Your task to perform on an android device: Search for the best rated book on Goodreads. Image 0: 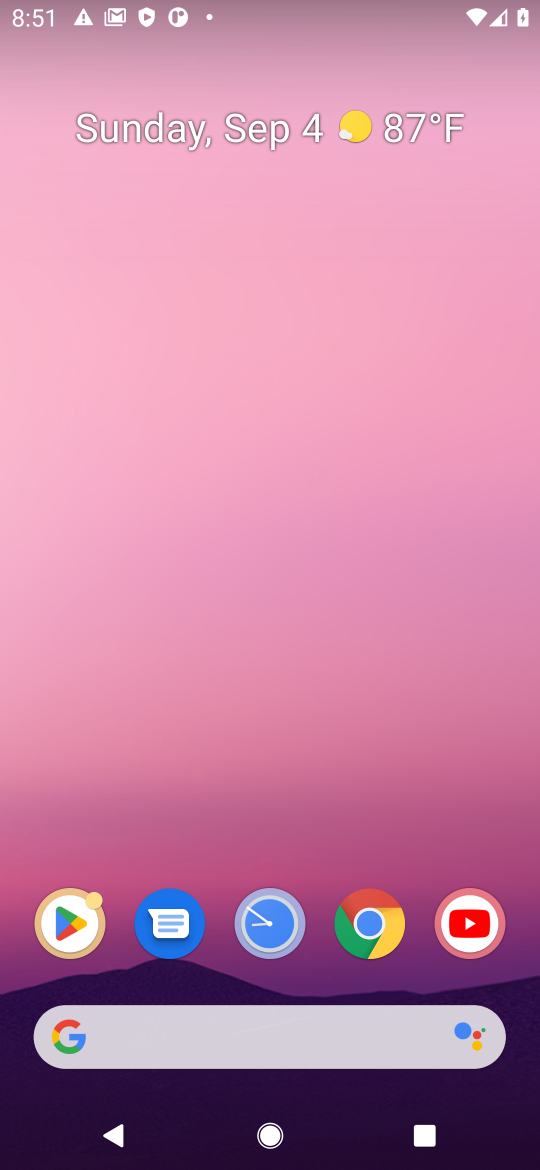
Step 0: press home button
Your task to perform on an android device: Search for the best rated book on Goodreads. Image 1: 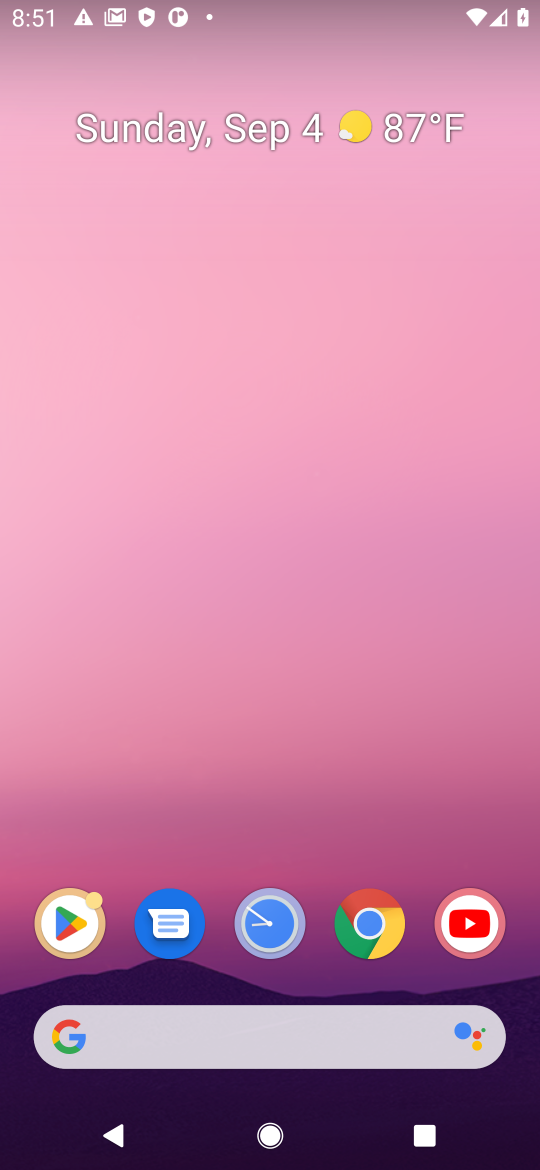
Step 1: click (399, 1030)
Your task to perform on an android device: Search for the best rated book on Goodreads. Image 2: 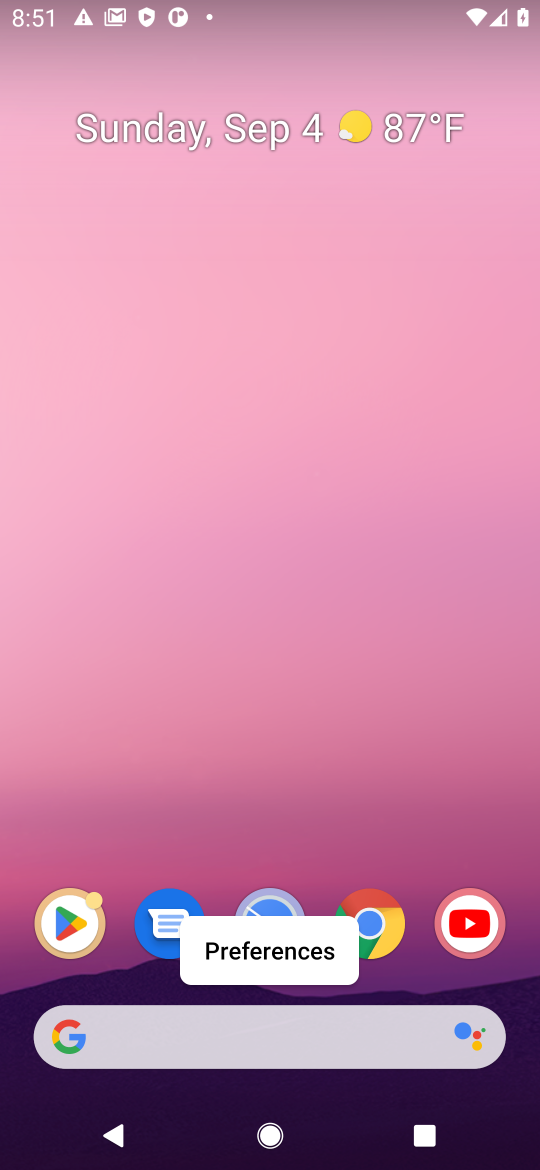
Step 2: click (377, 1038)
Your task to perform on an android device: Search for the best rated book on Goodreads. Image 3: 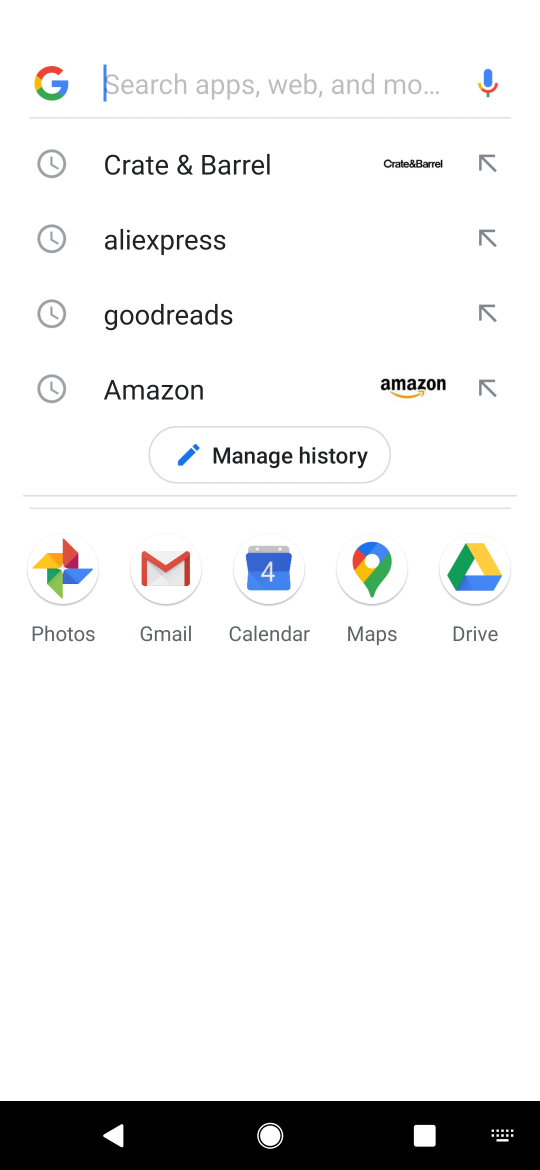
Step 3: press enter
Your task to perform on an android device: Search for the best rated book on Goodreads. Image 4: 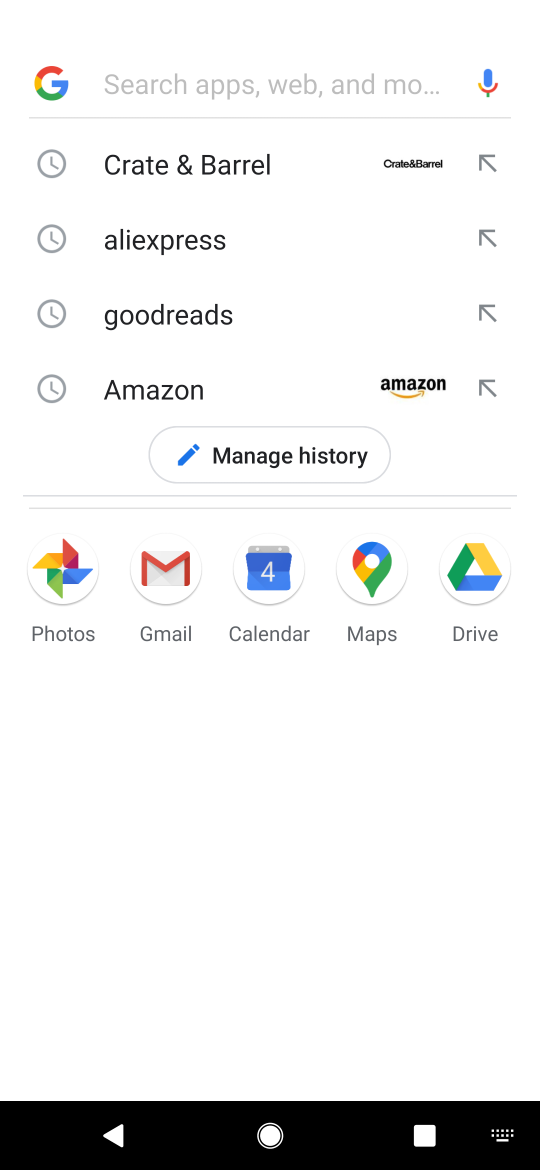
Step 4: type "goodreads"
Your task to perform on an android device: Search for the best rated book on Goodreads. Image 5: 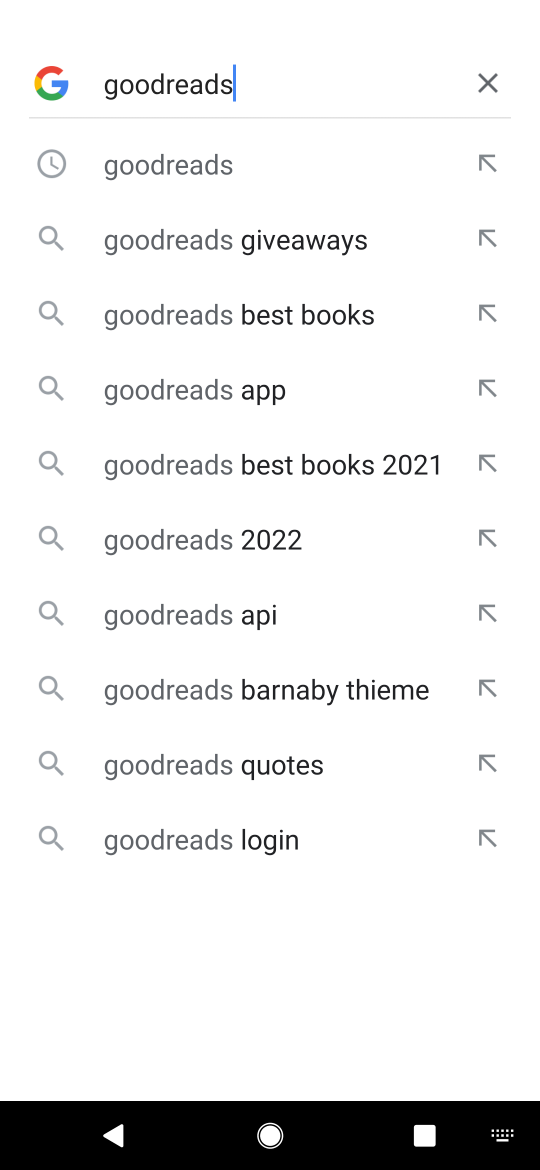
Step 5: click (205, 158)
Your task to perform on an android device: Search for the best rated book on Goodreads. Image 6: 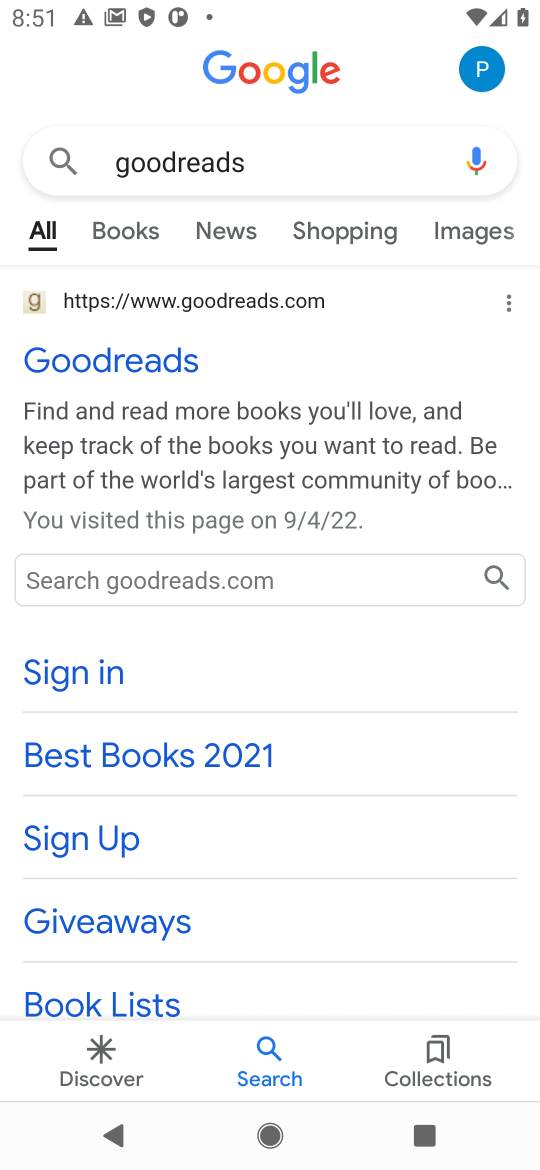
Step 6: click (145, 362)
Your task to perform on an android device: Search for the best rated book on Goodreads. Image 7: 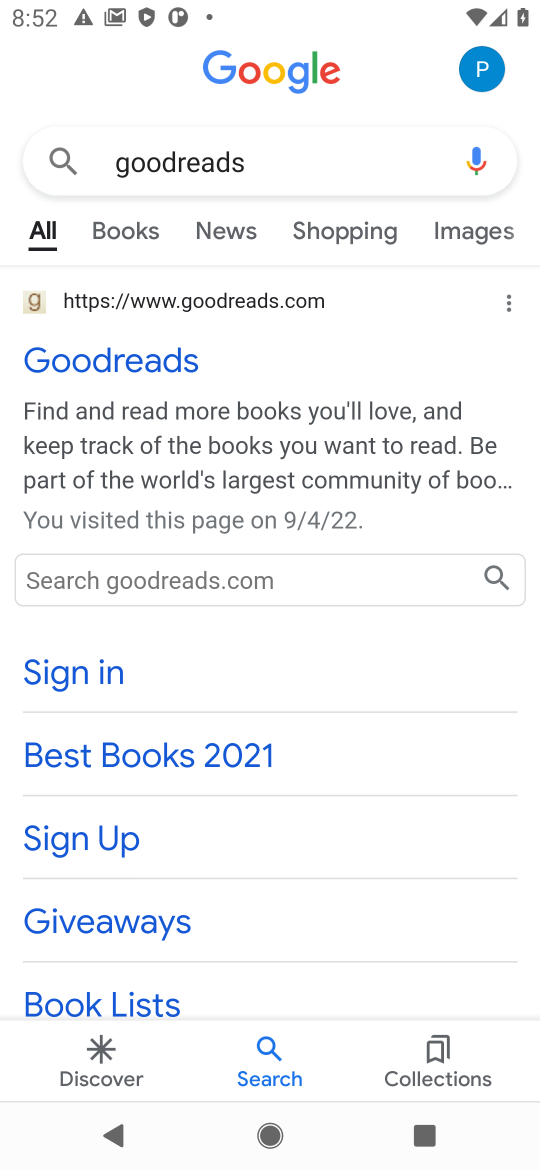
Step 7: click (178, 360)
Your task to perform on an android device: Search for the best rated book on Goodreads. Image 8: 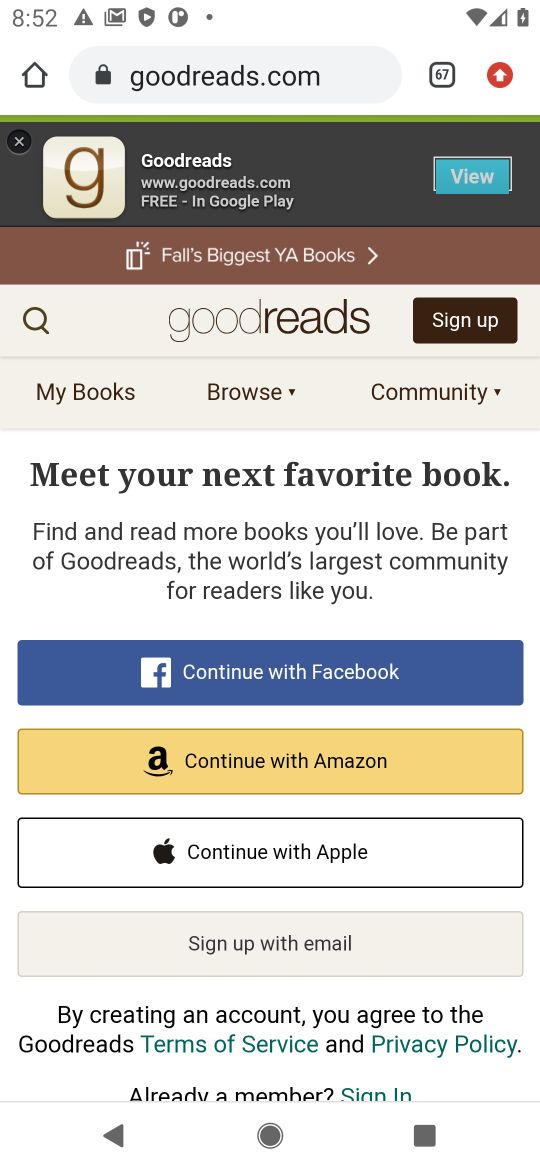
Step 8: click (37, 323)
Your task to perform on an android device: Search for the best rated book on Goodreads. Image 9: 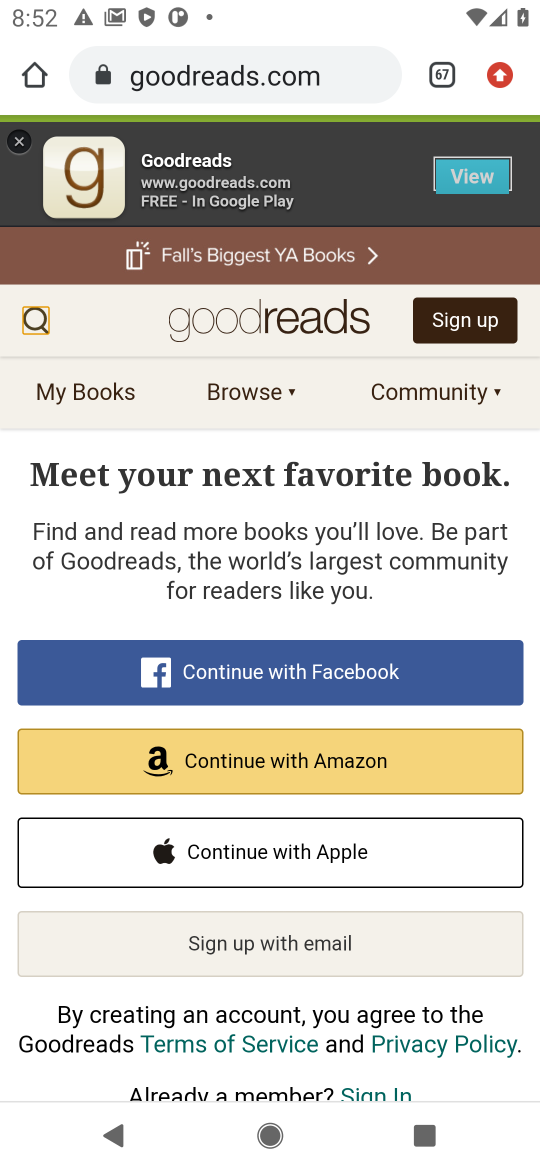
Step 9: click (69, 332)
Your task to perform on an android device: Search for the best rated book on Goodreads. Image 10: 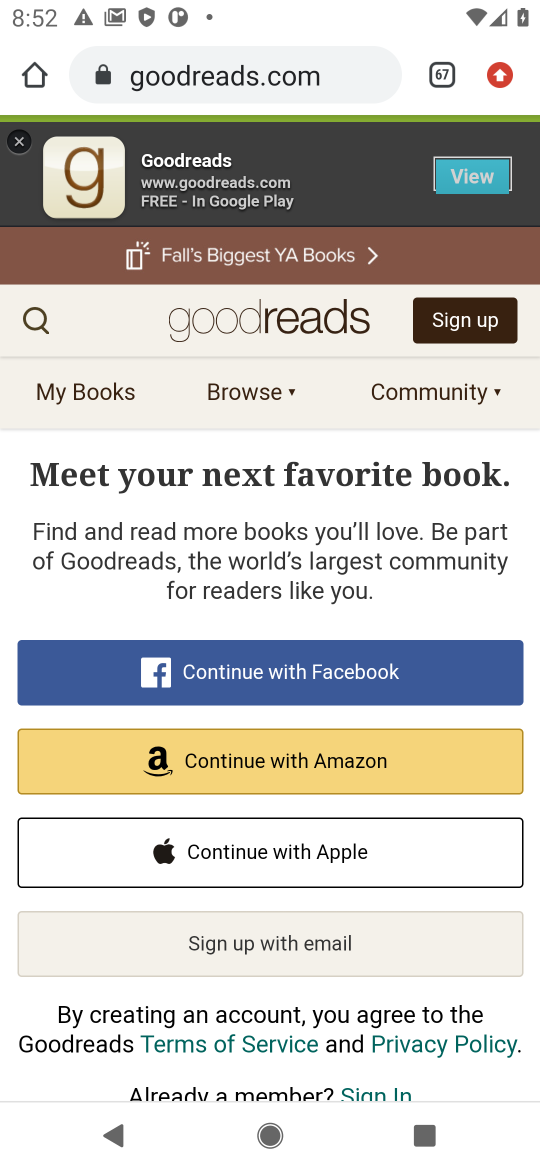
Step 10: click (52, 325)
Your task to perform on an android device: Search for the best rated book on Goodreads. Image 11: 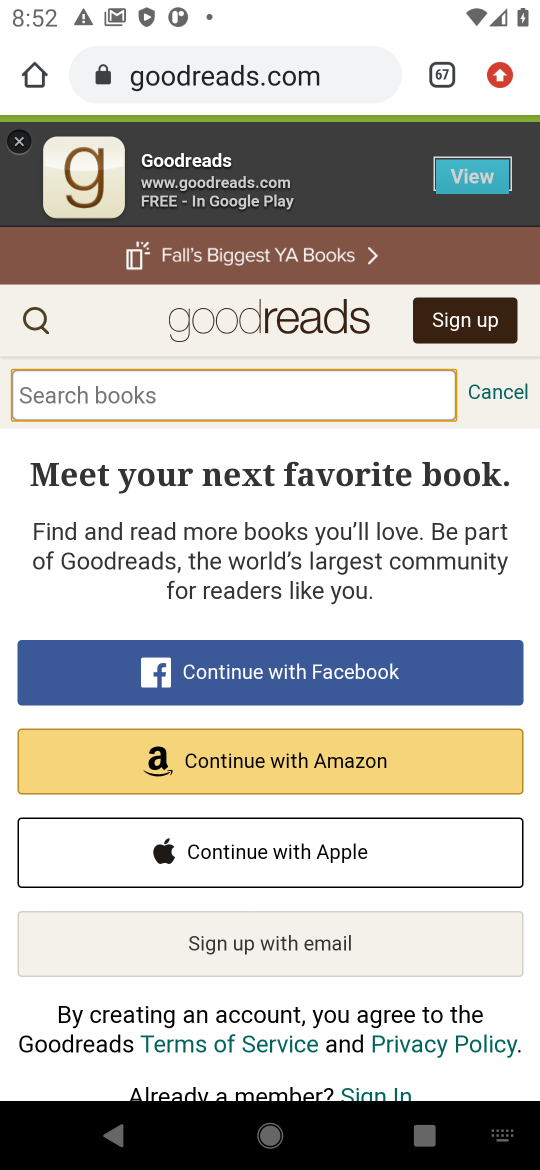
Step 11: press enter
Your task to perform on an android device: Search for the best rated book on Goodreads. Image 12: 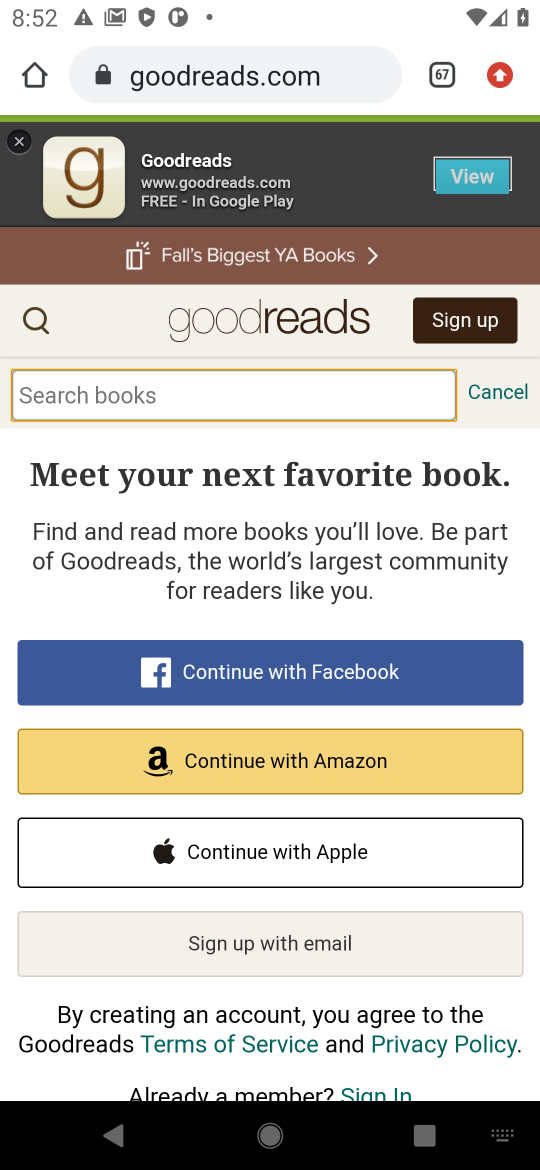
Step 12: type "best rated book"
Your task to perform on an android device: Search for the best rated book on Goodreads. Image 13: 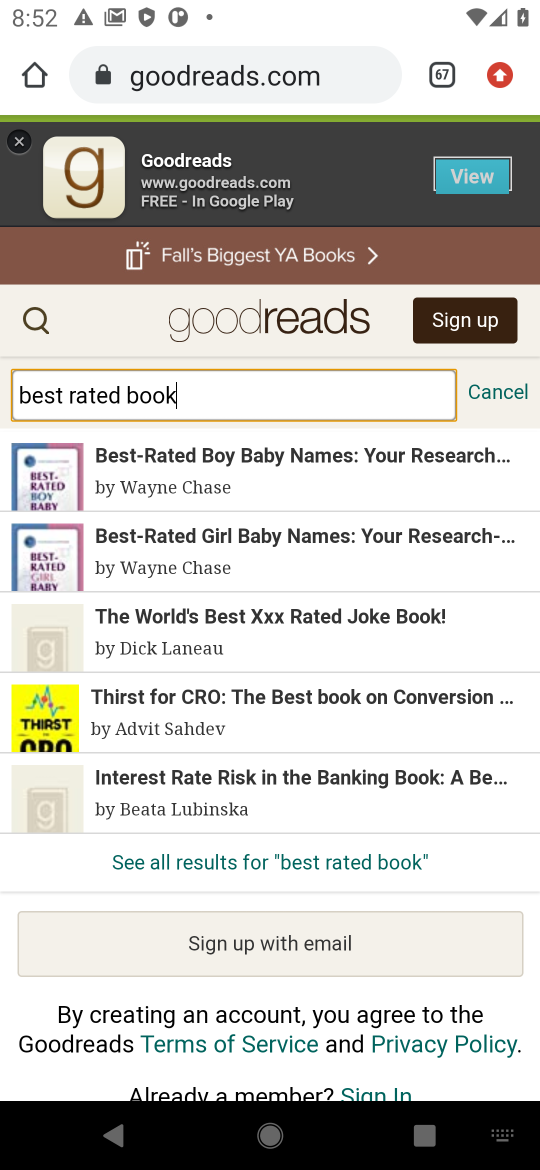
Step 13: task complete